Your task to perform on an android device: turn pop-ups on in chrome Image 0: 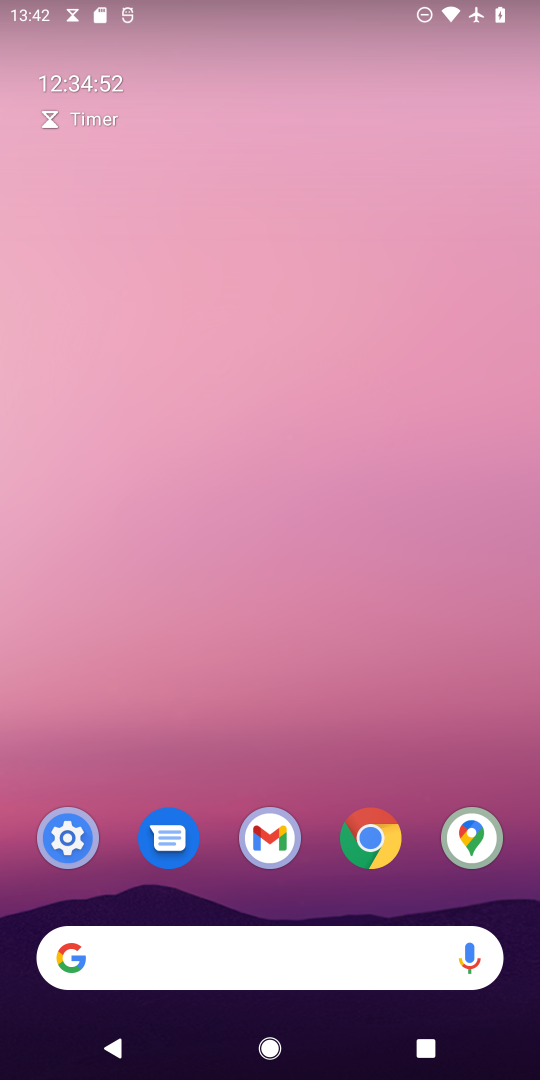
Step 0: press home button
Your task to perform on an android device: turn pop-ups on in chrome Image 1: 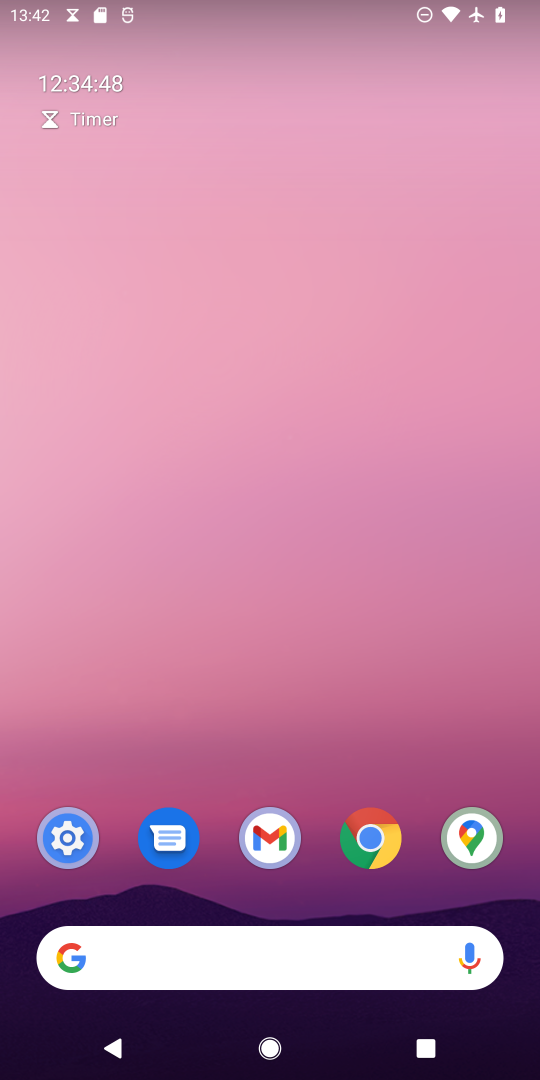
Step 1: click (370, 840)
Your task to perform on an android device: turn pop-ups on in chrome Image 2: 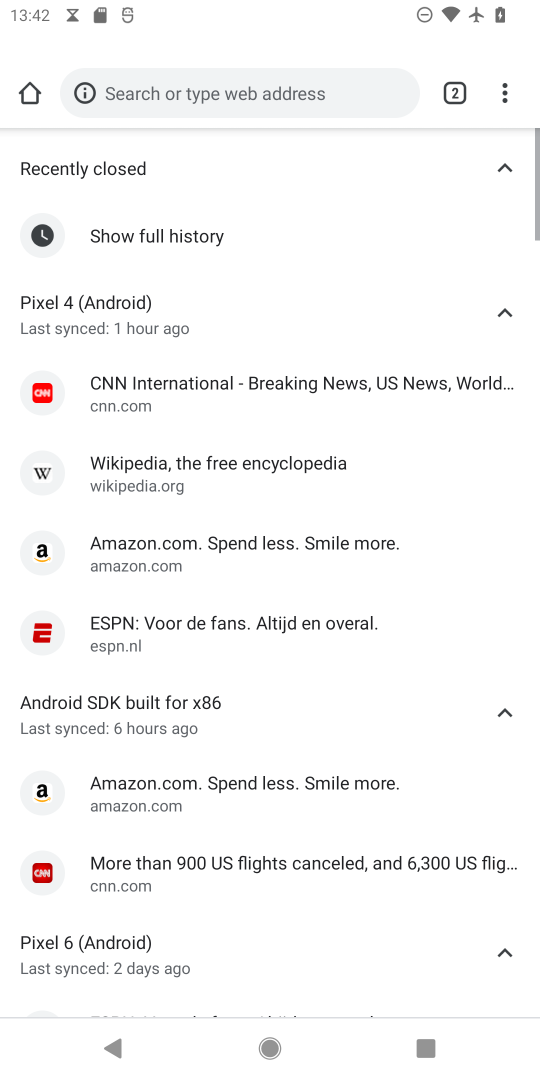
Step 2: drag from (504, 90) to (338, 665)
Your task to perform on an android device: turn pop-ups on in chrome Image 3: 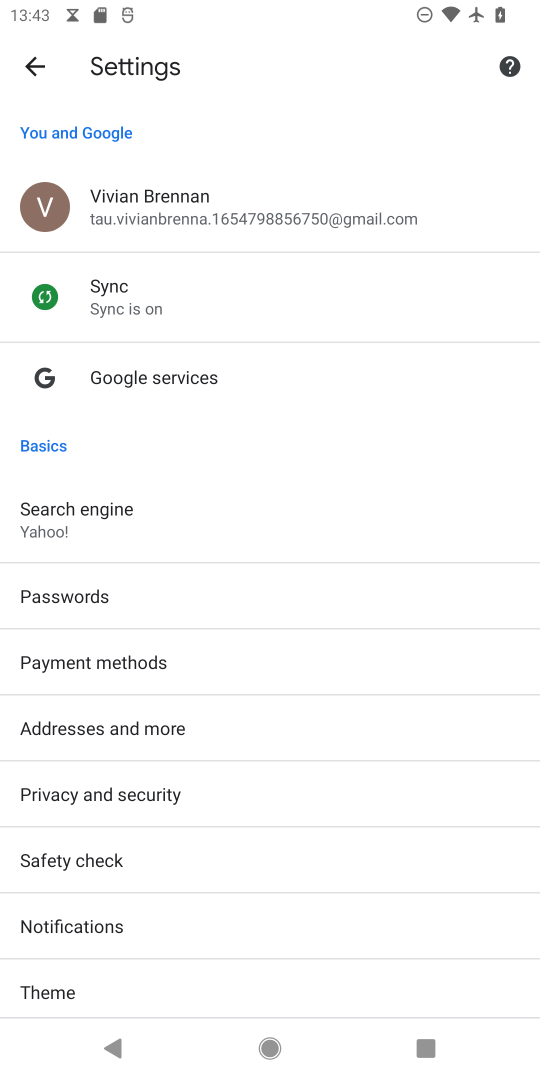
Step 3: drag from (199, 913) to (162, 240)
Your task to perform on an android device: turn pop-ups on in chrome Image 4: 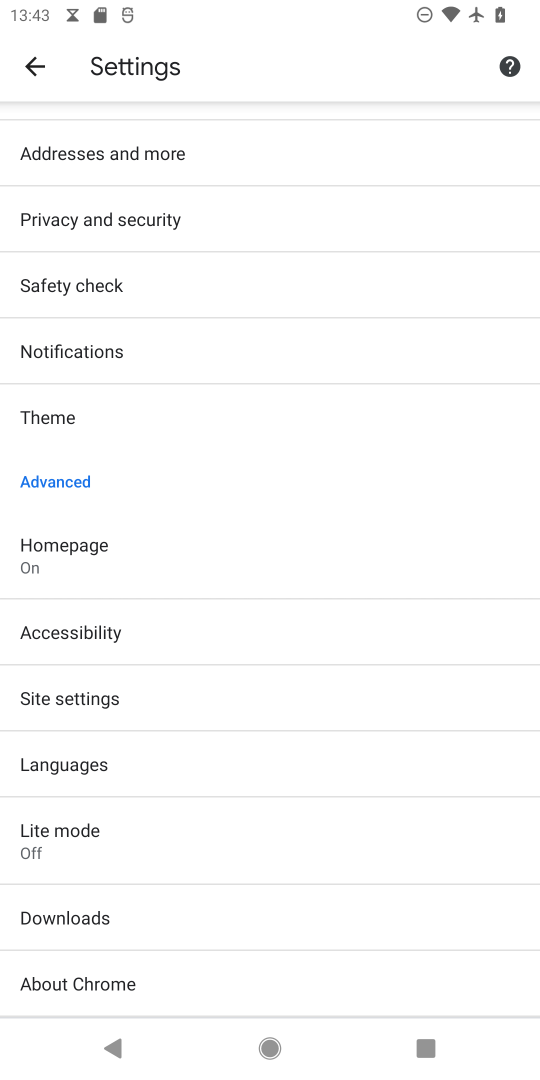
Step 4: click (66, 704)
Your task to perform on an android device: turn pop-ups on in chrome Image 5: 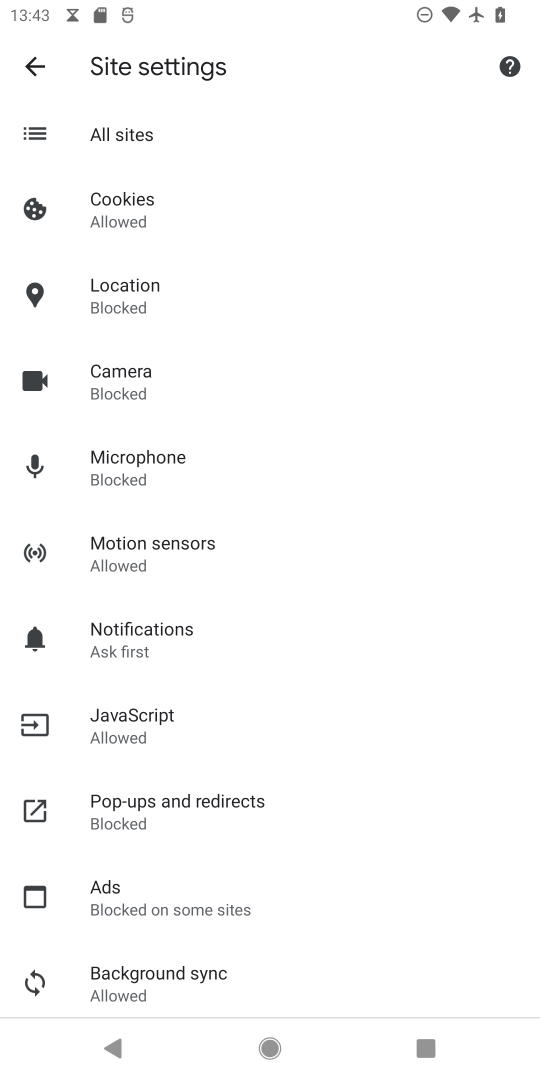
Step 5: click (161, 817)
Your task to perform on an android device: turn pop-ups on in chrome Image 6: 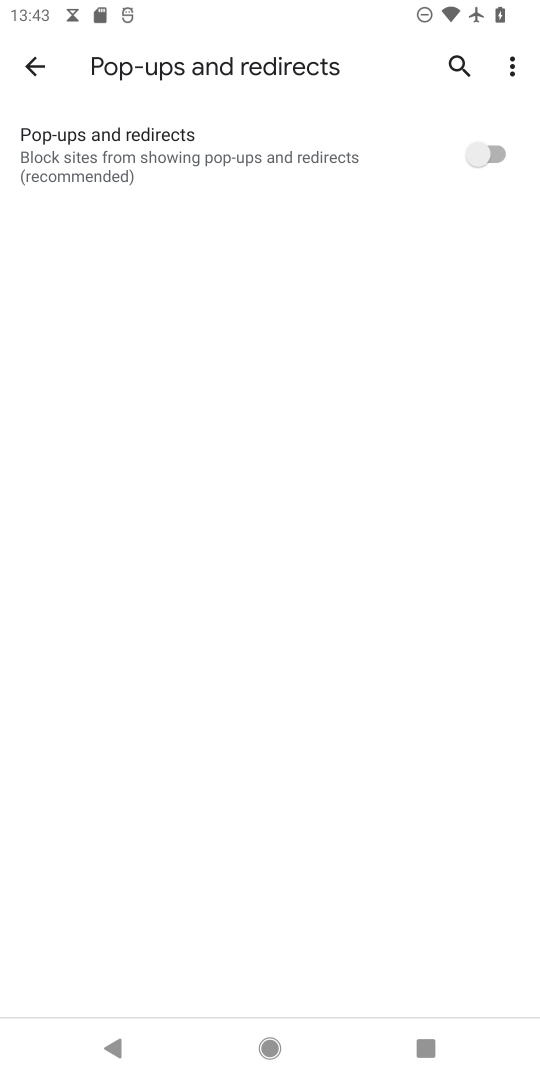
Step 6: click (468, 145)
Your task to perform on an android device: turn pop-ups on in chrome Image 7: 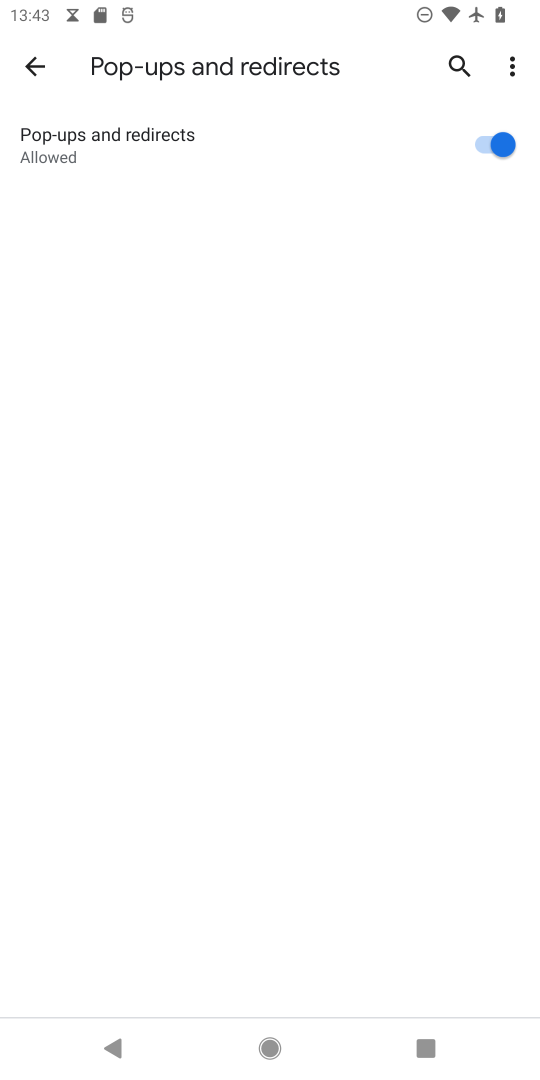
Step 7: task complete